Your task to perform on an android device: turn off priority inbox in the gmail app Image 0: 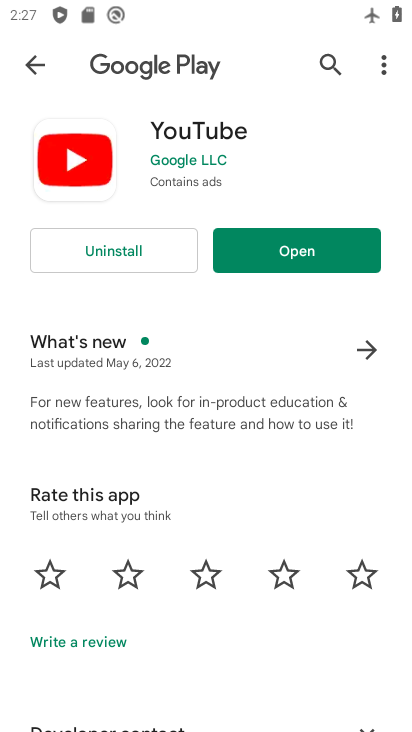
Step 0: press home button
Your task to perform on an android device: turn off priority inbox in the gmail app Image 1: 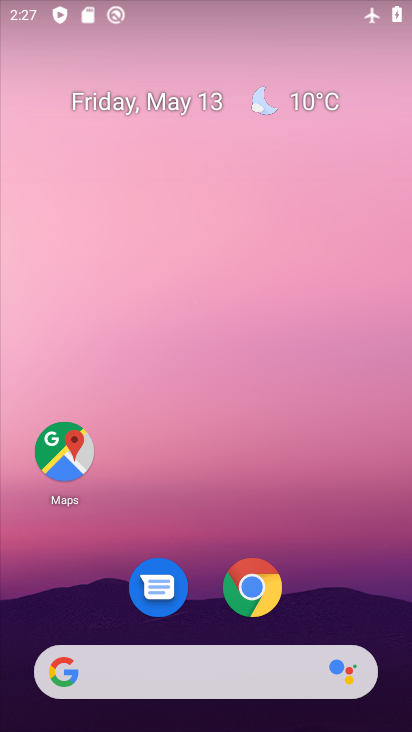
Step 1: drag from (198, 508) to (226, 54)
Your task to perform on an android device: turn off priority inbox in the gmail app Image 2: 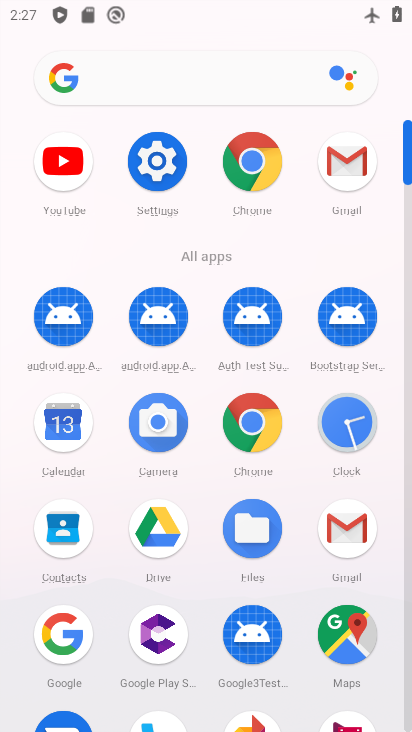
Step 2: click (332, 164)
Your task to perform on an android device: turn off priority inbox in the gmail app Image 3: 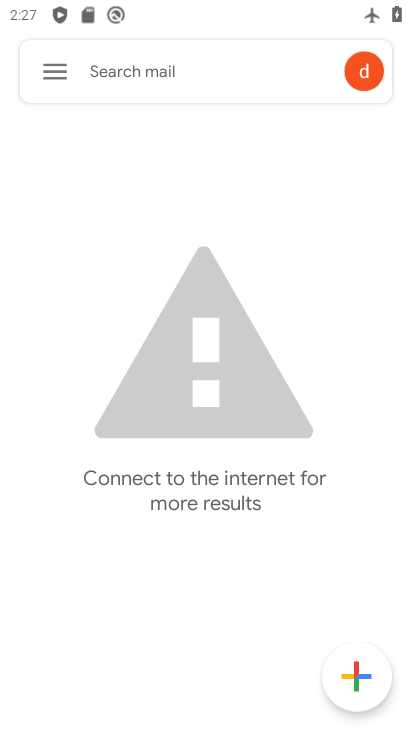
Step 3: click (57, 79)
Your task to perform on an android device: turn off priority inbox in the gmail app Image 4: 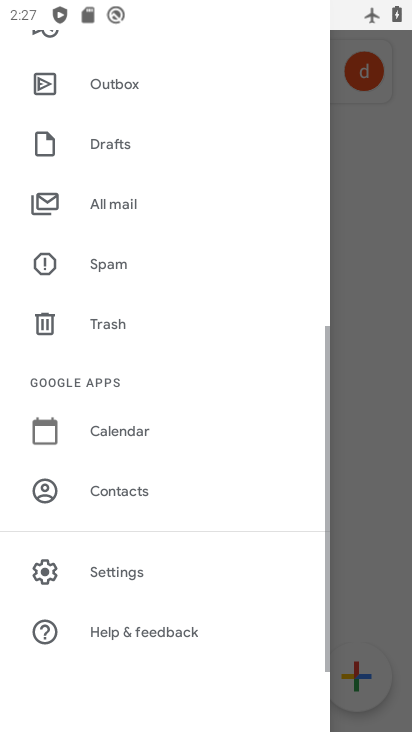
Step 4: click (137, 579)
Your task to perform on an android device: turn off priority inbox in the gmail app Image 5: 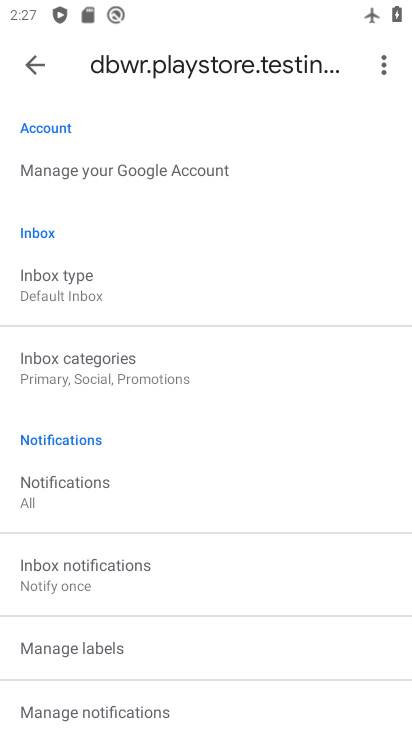
Step 5: click (72, 297)
Your task to perform on an android device: turn off priority inbox in the gmail app Image 6: 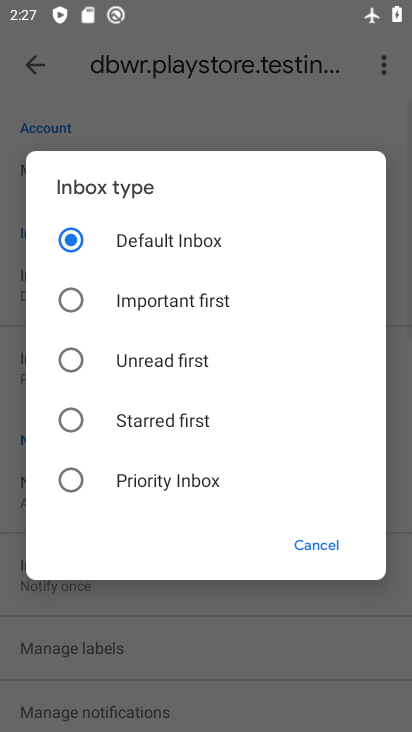
Step 6: click (159, 233)
Your task to perform on an android device: turn off priority inbox in the gmail app Image 7: 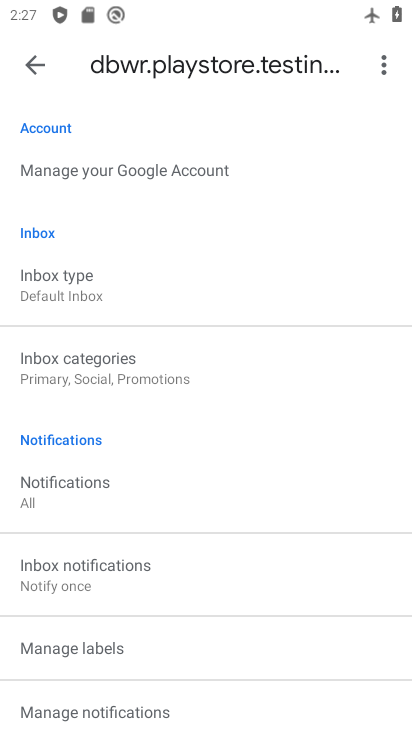
Step 7: task complete